Your task to perform on an android device: turn on translation in the chrome app Image 0: 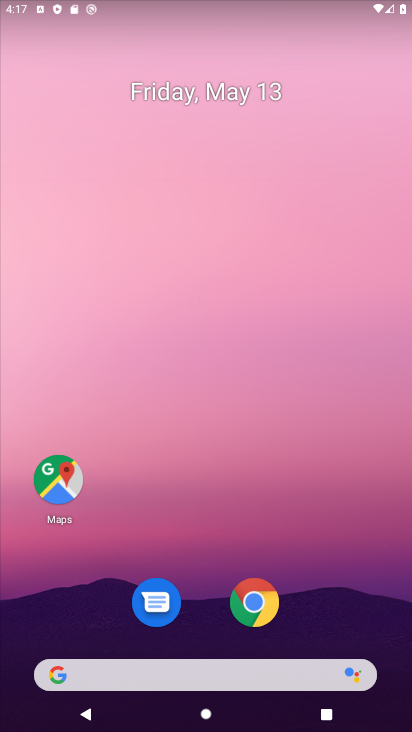
Step 0: click (252, 605)
Your task to perform on an android device: turn on translation in the chrome app Image 1: 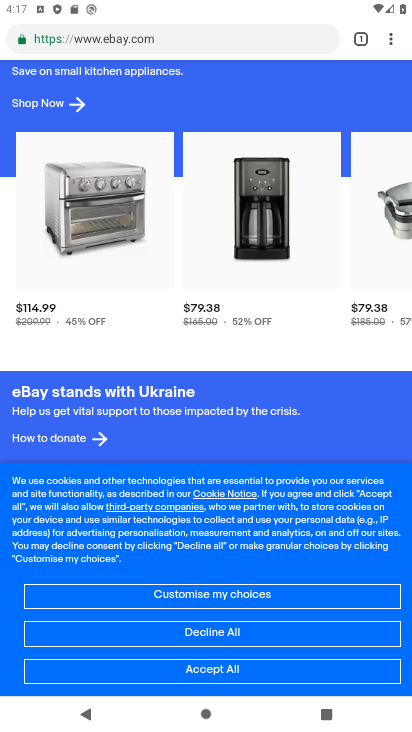
Step 1: click (391, 40)
Your task to perform on an android device: turn on translation in the chrome app Image 2: 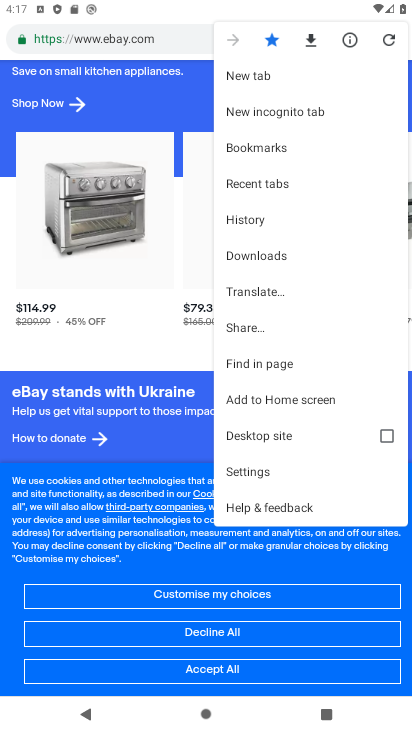
Step 2: click (262, 469)
Your task to perform on an android device: turn on translation in the chrome app Image 3: 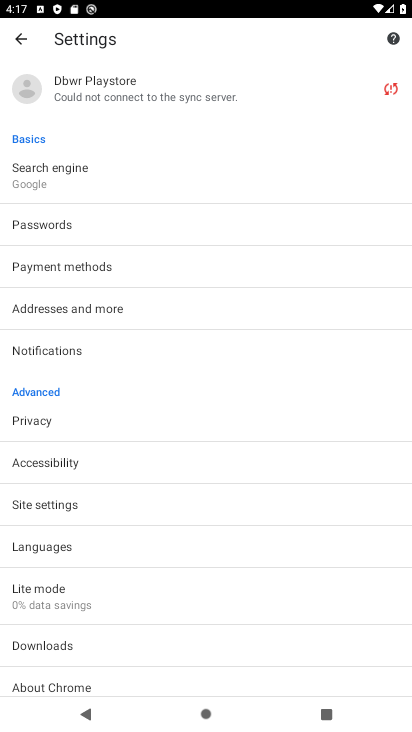
Step 3: click (63, 544)
Your task to perform on an android device: turn on translation in the chrome app Image 4: 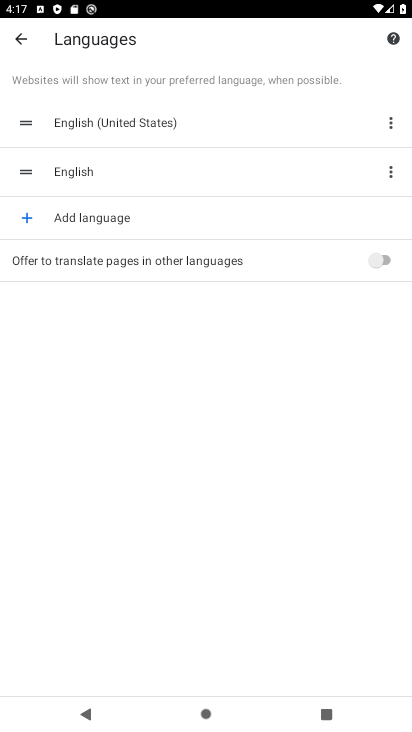
Step 4: click (376, 255)
Your task to perform on an android device: turn on translation in the chrome app Image 5: 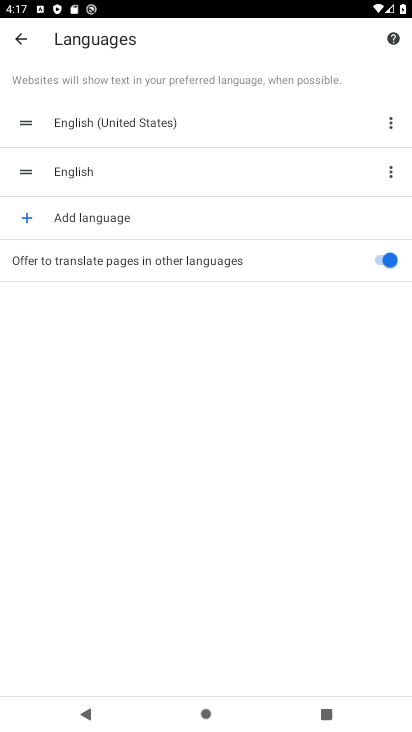
Step 5: task complete